Your task to perform on an android device: Go to display settings Image 0: 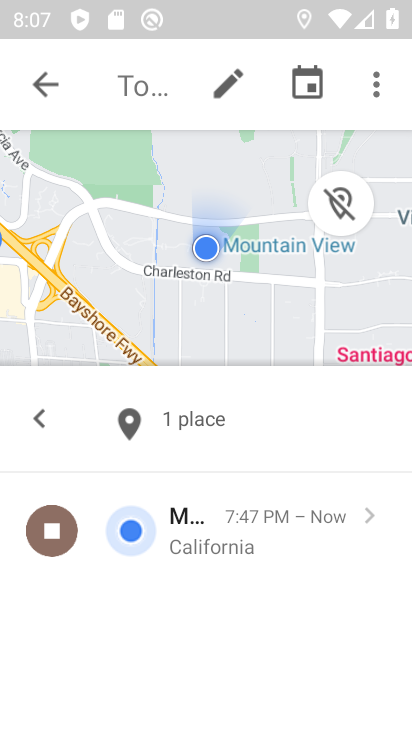
Step 0: press home button
Your task to perform on an android device: Go to display settings Image 1: 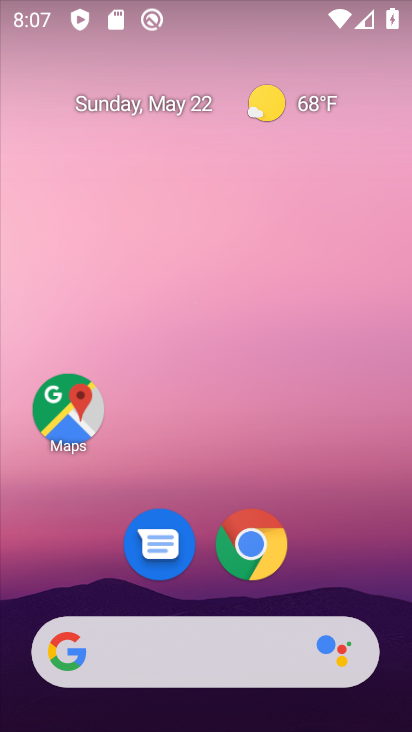
Step 1: drag from (386, 505) to (407, 259)
Your task to perform on an android device: Go to display settings Image 2: 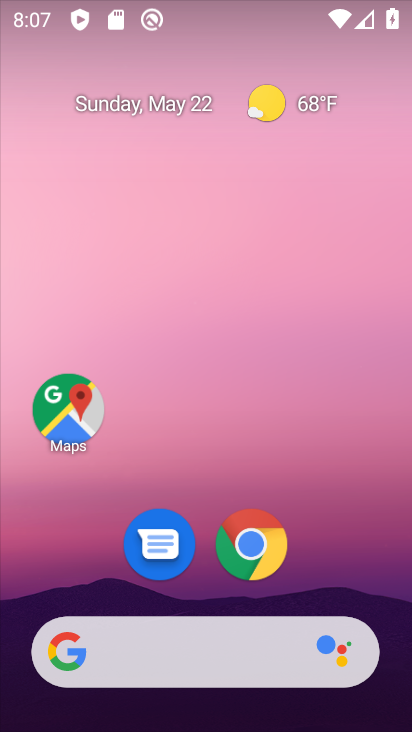
Step 2: drag from (379, 683) to (366, 64)
Your task to perform on an android device: Go to display settings Image 3: 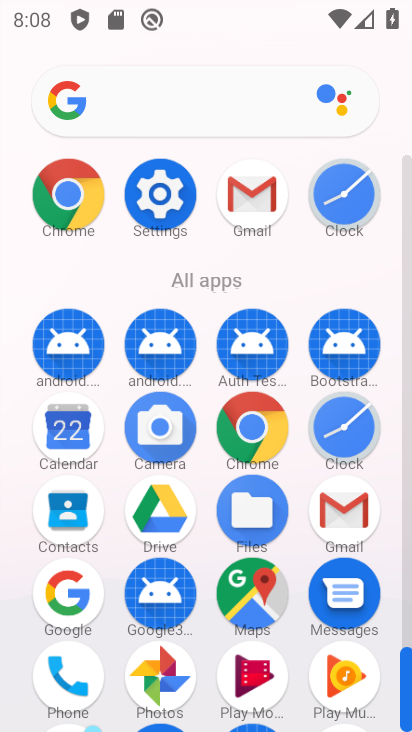
Step 3: click (158, 208)
Your task to perform on an android device: Go to display settings Image 4: 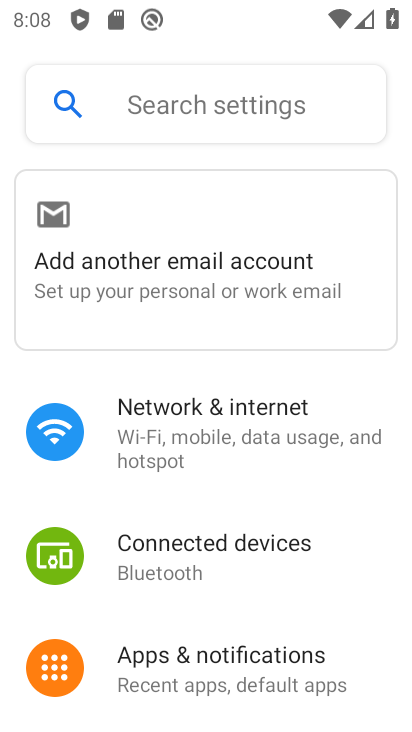
Step 4: drag from (373, 667) to (378, 324)
Your task to perform on an android device: Go to display settings Image 5: 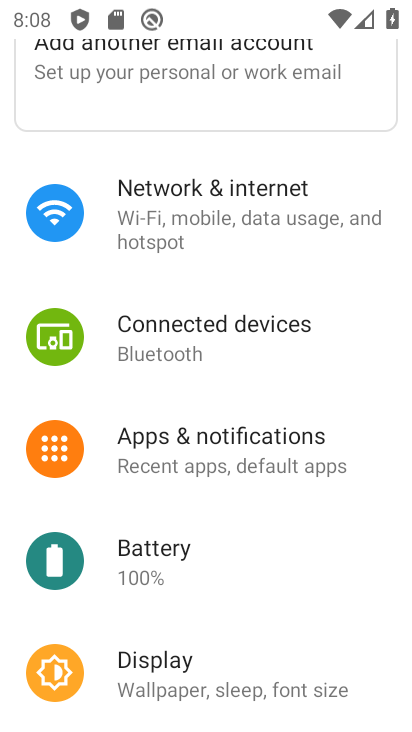
Step 5: click (137, 659)
Your task to perform on an android device: Go to display settings Image 6: 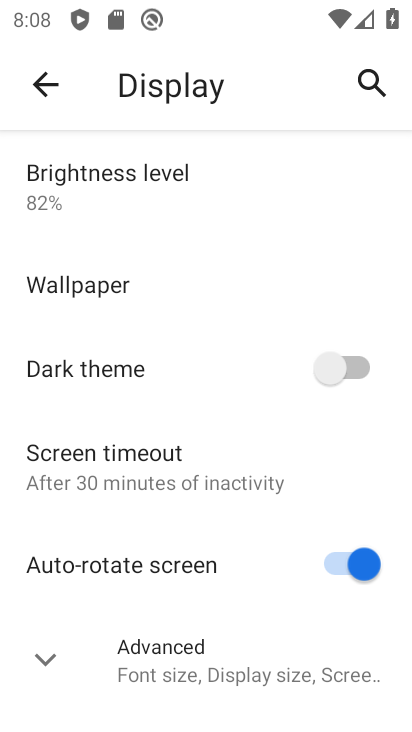
Step 6: task complete